Your task to perform on an android device: toggle improve location accuracy Image 0: 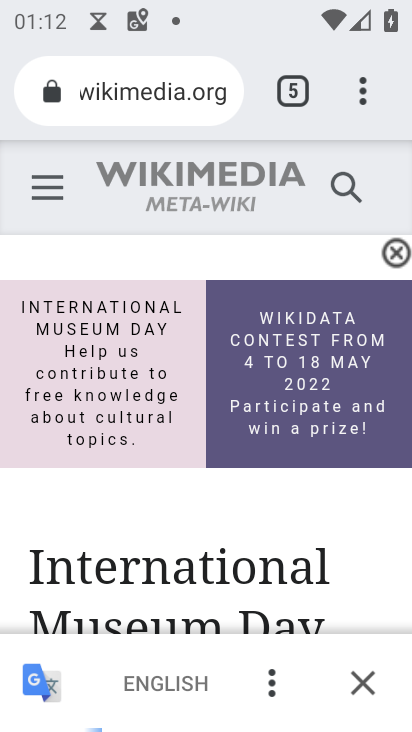
Step 0: click (360, 680)
Your task to perform on an android device: toggle improve location accuracy Image 1: 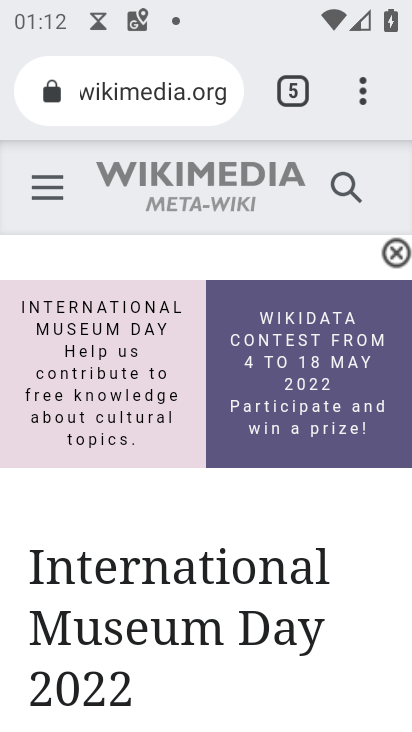
Step 1: press home button
Your task to perform on an android device: toggle improve location accuracy Image 2: 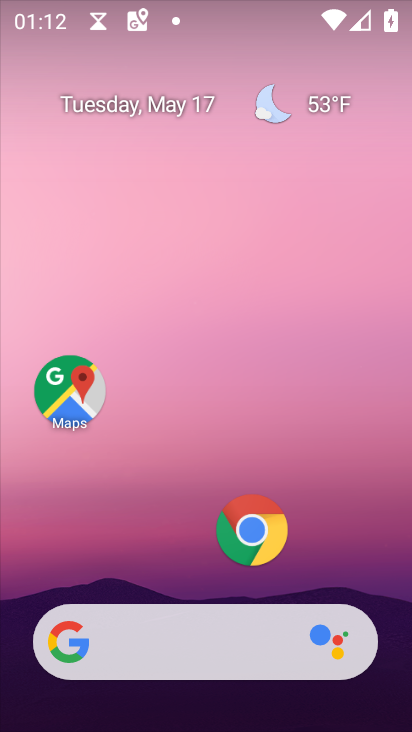
Step 2: drag from (281, 221) to (249, 100)
Your task to perform on an android device: toggle improve location accuracy Image 3: 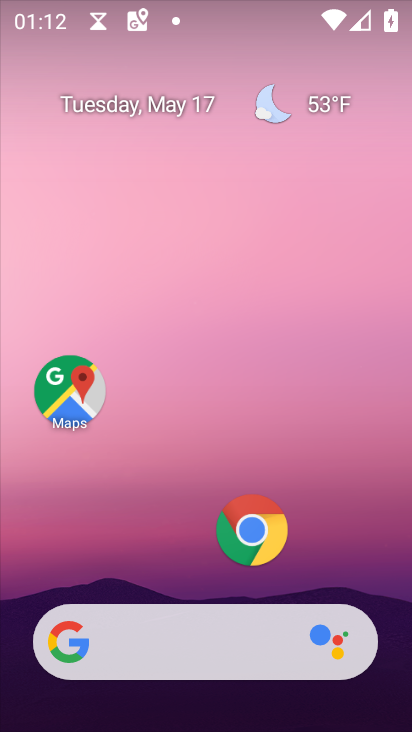
Step 3: drag from (229, 475) to (152, 28)
Your task to perform on an android device: toggle improve location accuracy Image 4: 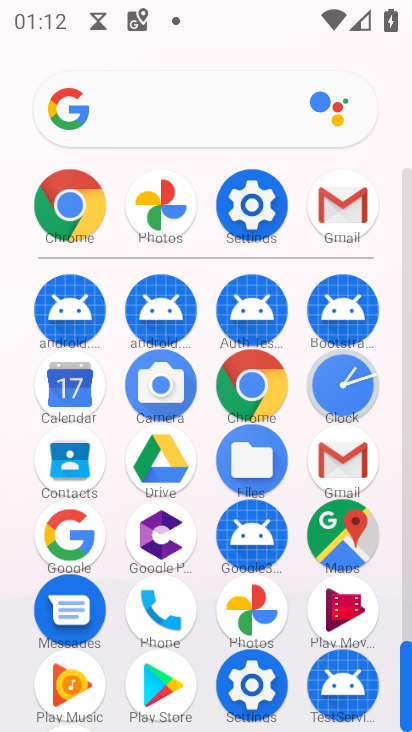
Step 4: click (241, 196)
Your task to perform on an android device: toggle improve location accuracy Image 5: 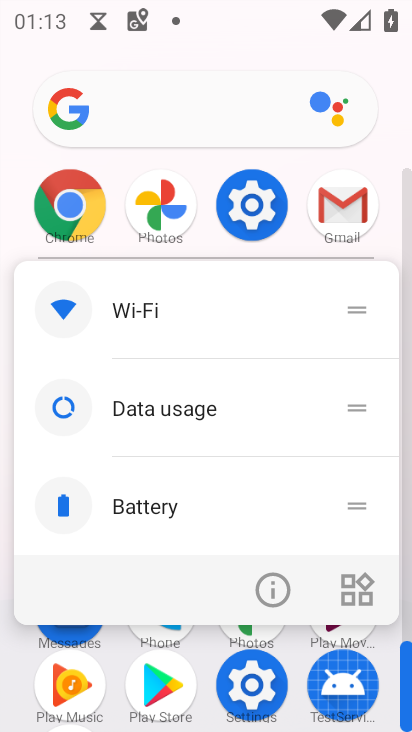
Step 5: click (258, 190)
Your task to perform on an android device: toggle improve location accuracy Image 6: 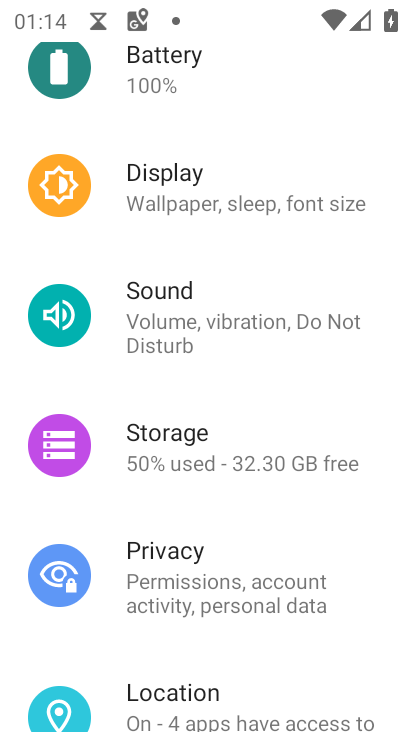
Step 6: drag from (175, 186) to (258, 652)
Your task to perform on an android device: toggle improve location accuracy Image 7: 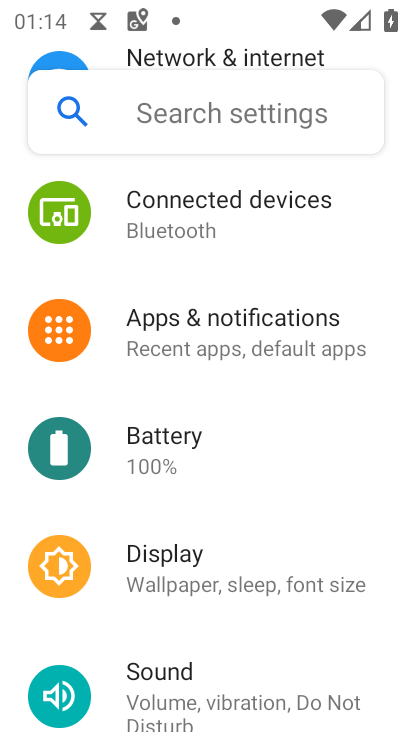
Step 7: drag from (219, 681) to (172, 92)
Your task to perform on an android device: toggle improve location accuracy Image 8: 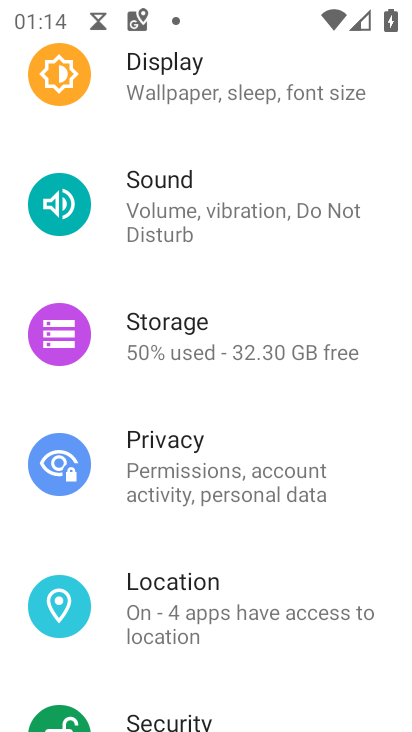
Step 8: click (197, 604)
Your task to perform on an android device: toggle improve location accuracy Image 9: 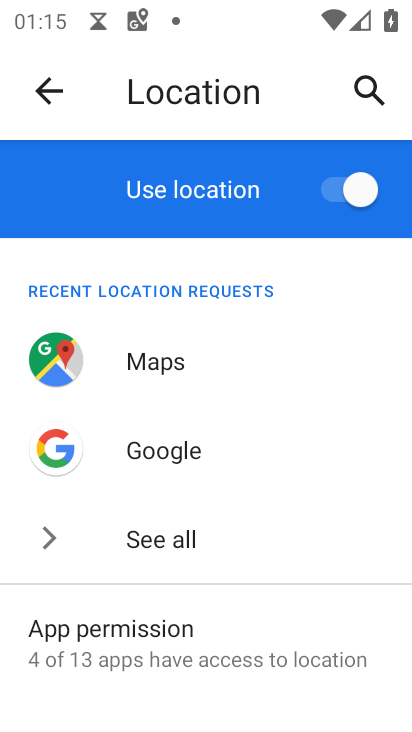
Step 9: click (179, 630)
Your task to perform on an android device: toggle improve location accuracy Image 10: 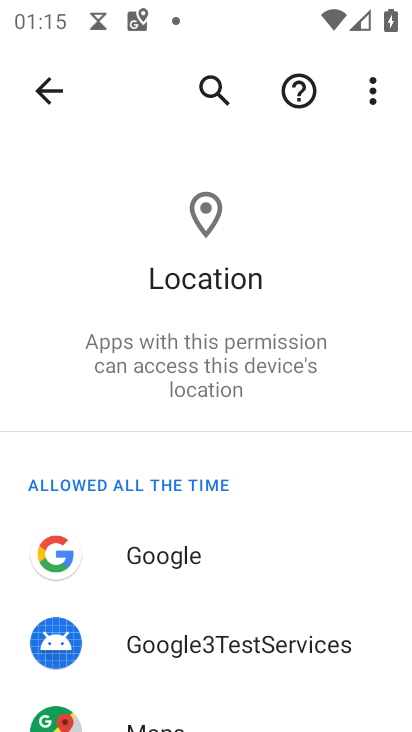
Step 10: drag from (265, 494) to (202, 70)
Your task to perform on an android device: toggle improve location accuracy Image 11: 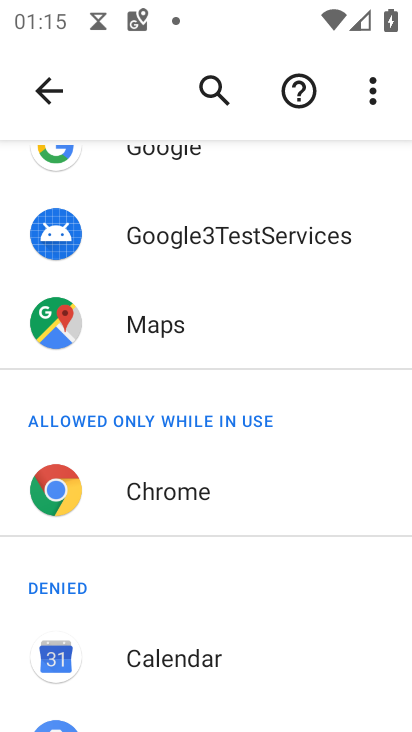
Step 11: drag from (291, 573) to (259, 320)
Your task to perform on an android device: toggle improve location accuracy Image 12: 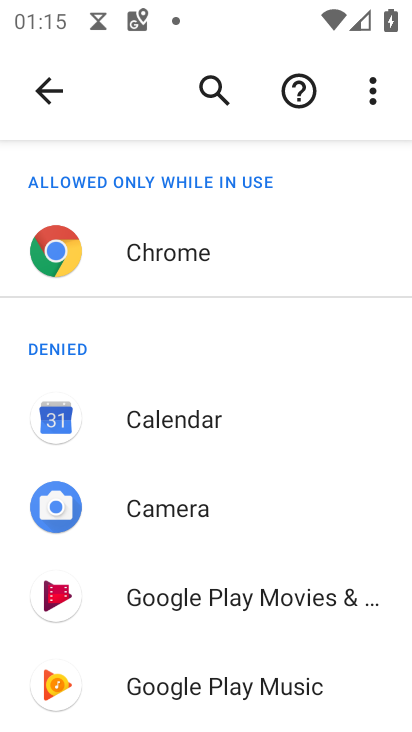
Step 12: drag from (228, 474) to (172, 234)
Your task to perform on an android device: toggle improve location accuracy Image 13: 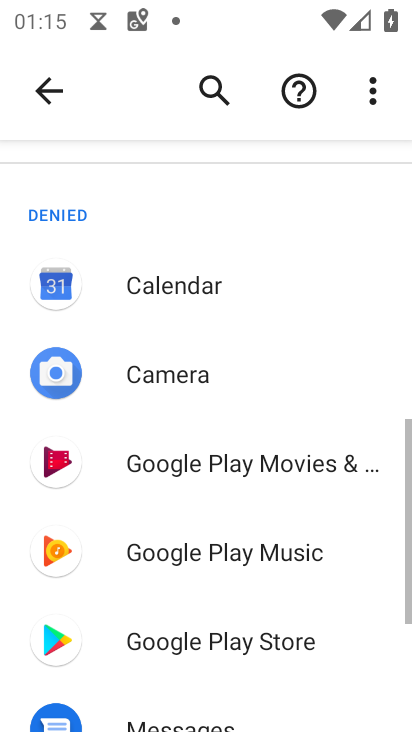
Step 13: drag from (177, 411) to (208, 700)
Your task to perform on an android device: toggle improve location accuracy Image 14: 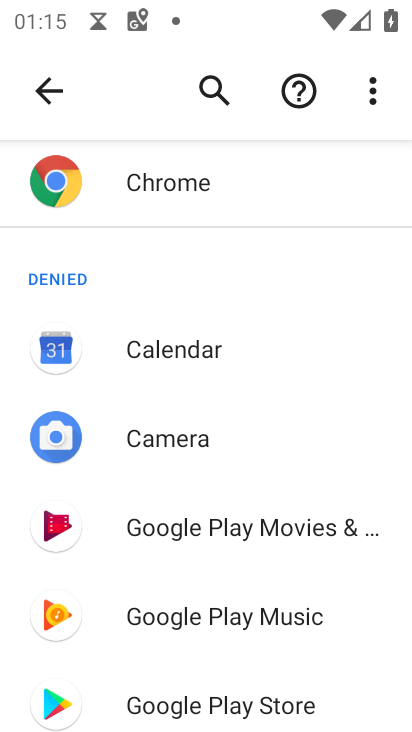
Step 14: click (44, 96)
Your task to perform on an android device: toggle improve location accuracy Image 15: 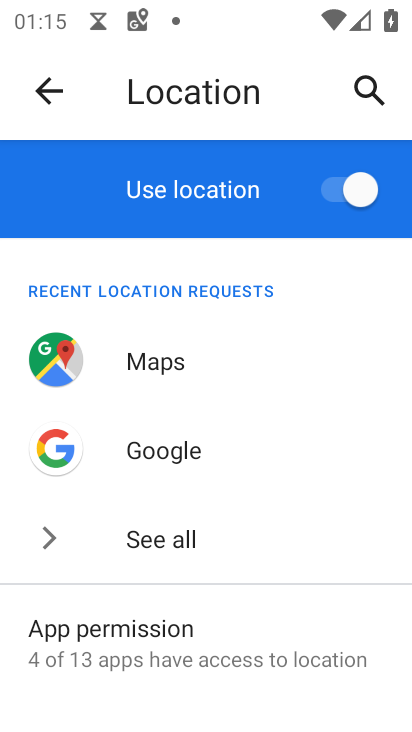
Step 15: drag from (166, 509) to (103, 107)
Your task to perform on an android device: toggle improve location accuracy Image 16: 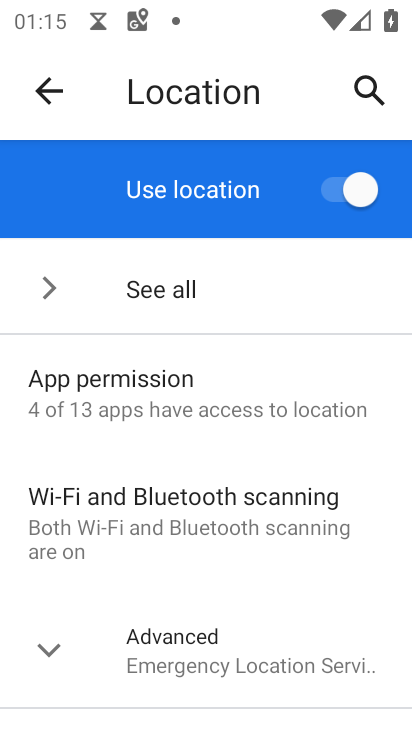
Step 16: drag from (200, 537) to (138, 175)
Your task to perform on an android device: toggle improve location accuracy Image 17: 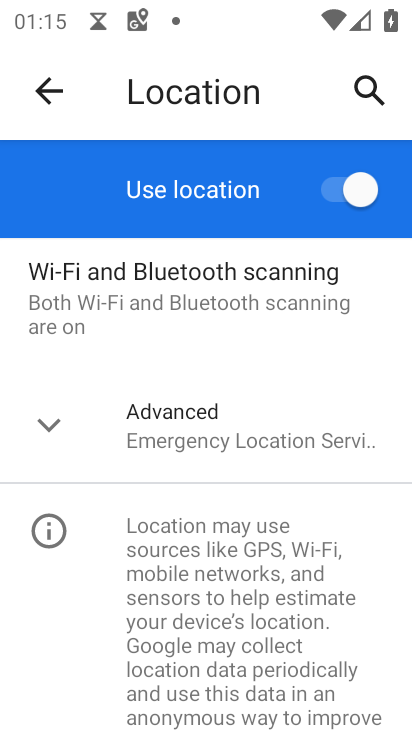
Step 17: click (178, 388)
Your task to perform on an android device: toggle improve location accuracy Image 18: 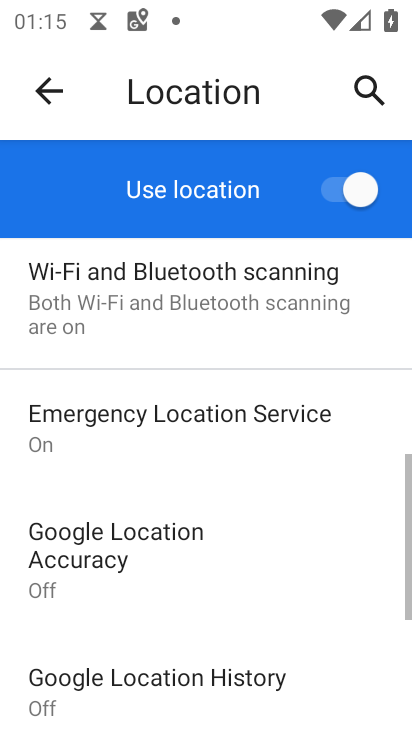
Step 18: click (218, 599)
Your task to perform on an android device: toggle improve location accuracy Image 19: 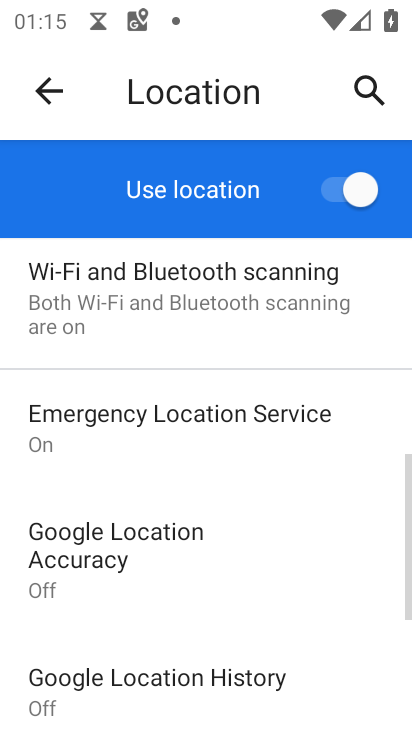
Step 19: click (147, 424)
Your task to perform on an android device: toggle improve location accuracy Image 20: 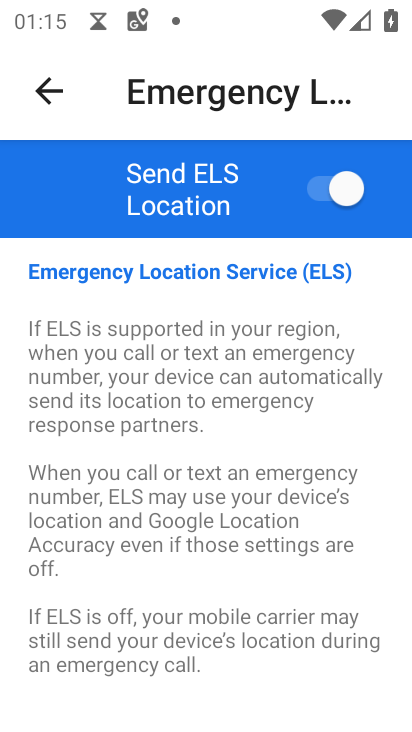
Step 20: click (44, 93)
Your task to perform on an android device: toggle improve location accuracy Image 21: 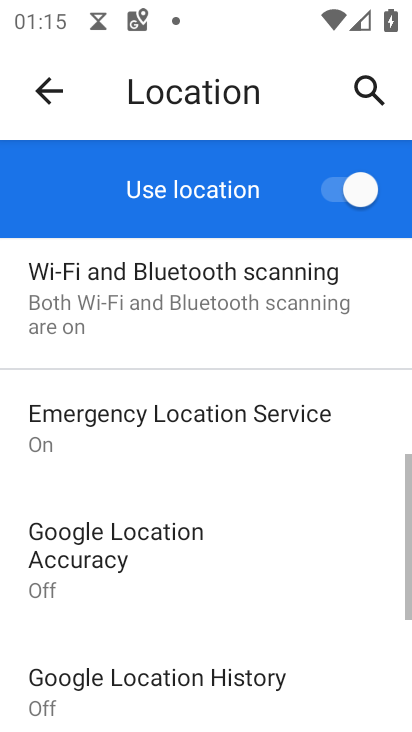
Step 21: click (179, 532)
Your task to perform on an android device: toggle improve location accuracy Image 22: 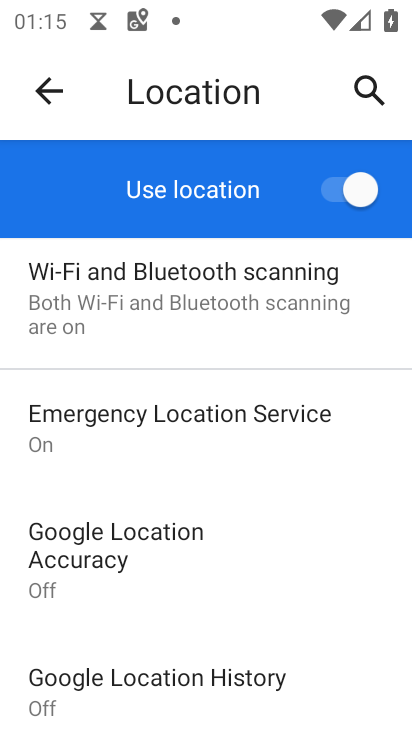
Step 22: click (188, 530)
Your task to perform on an android device: toggle improve location accuracy Image 23: 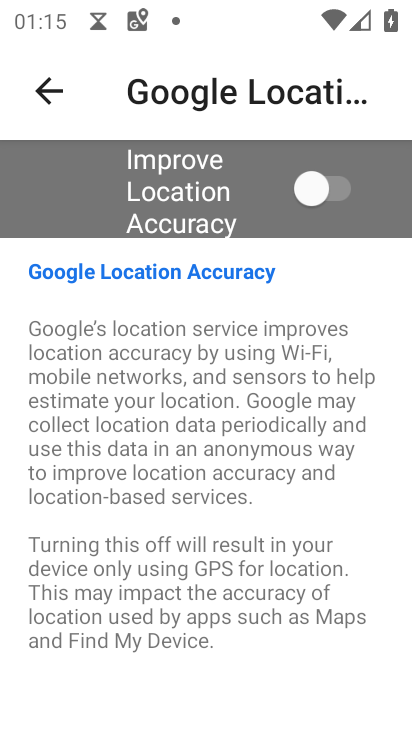
Step 23: click (303, 173)
Your task to perform on an android device: toggle improve location accuracy Image 24: 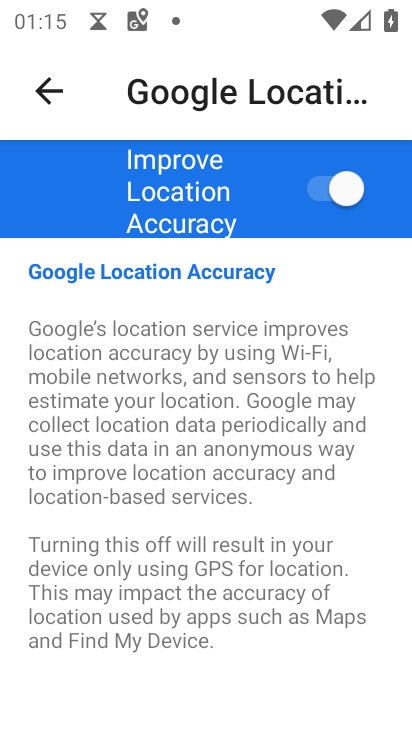
Step 24: task complete